Your task to perform on an android device: check data usage Image 0: 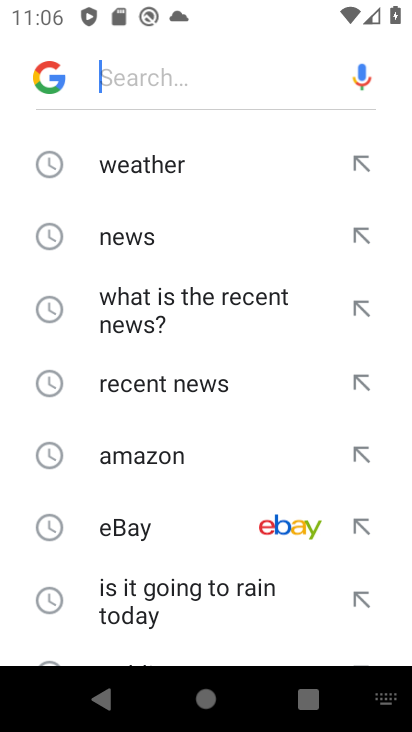
Step 0: press home button
Your task to perform on an android device: check data usage Image 1: 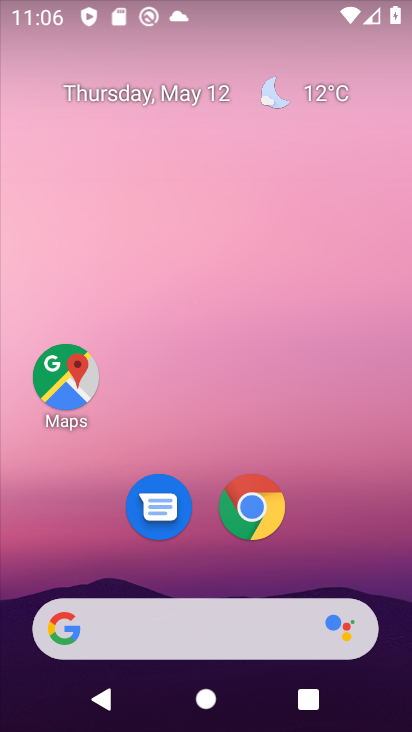
Step 1: drag from (207, 564) to (291, 38)
Your task to perform on an android device: check data usage Image 2: 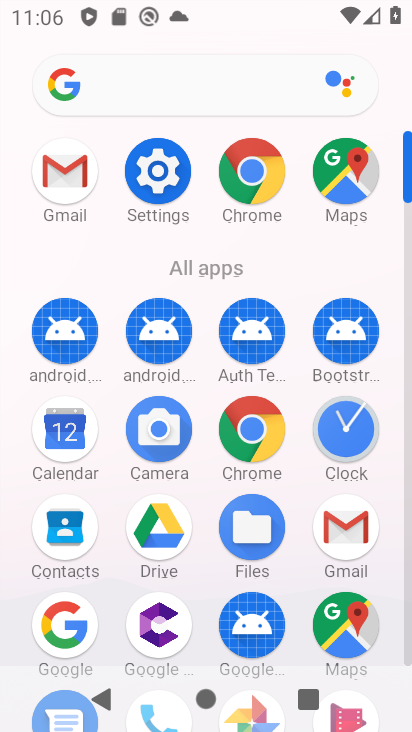
Step 2: click (176, 185)
Your task to perform on an android device: check data usage Image 3: 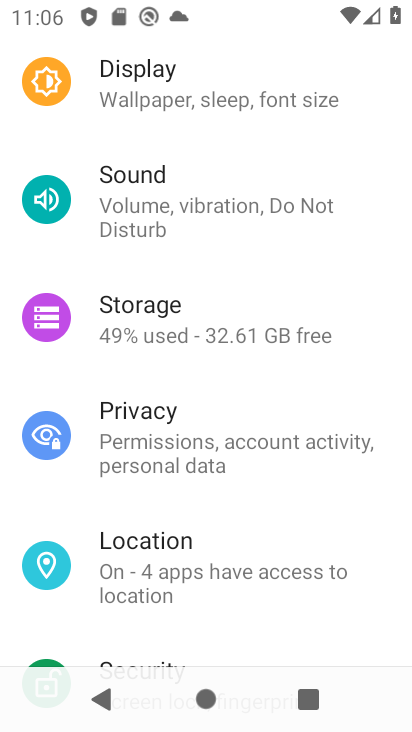
Step 3: drag from (182, 296) to (182, 700)
Your task to perform on an android device: check data usage Image 4: 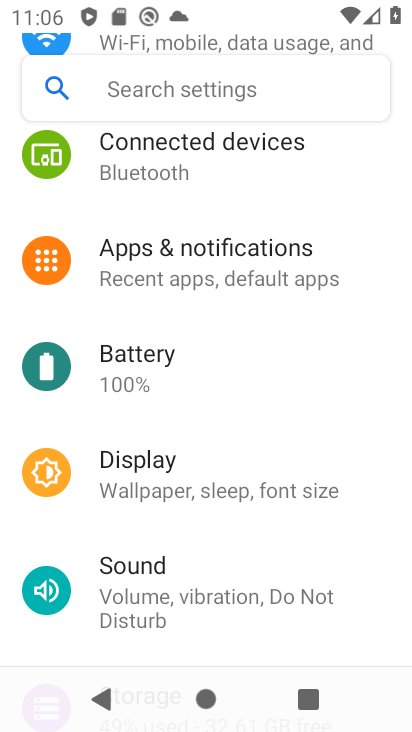
Step 4: drag from (195, 198) to (174, 725)
Your task to perform on an android device: check data usage Image 5: 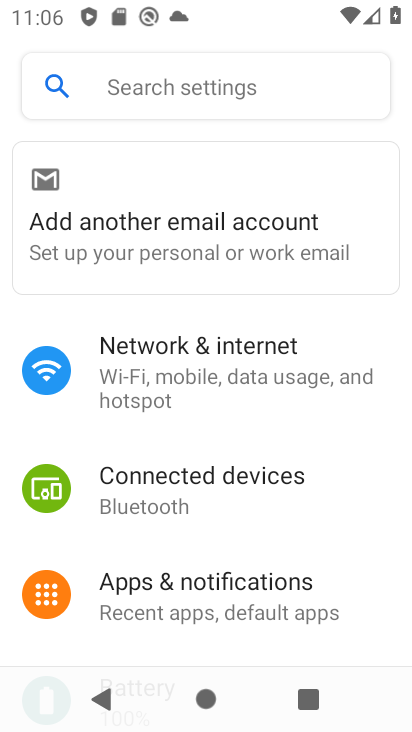
Step 5: click (151, 407)
Your task to perform on an android device: check data usage Image 6: 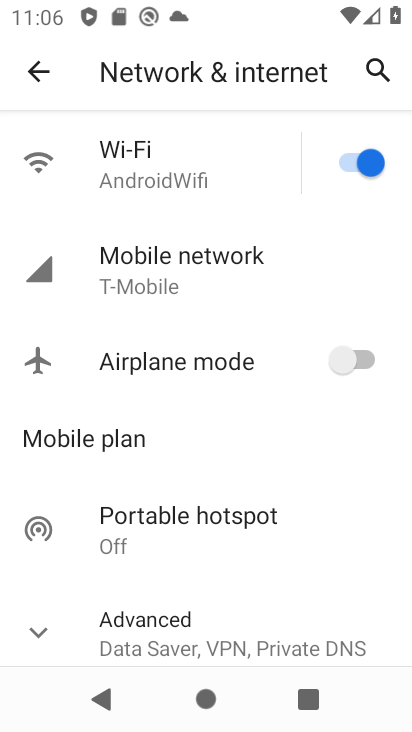
Step 6: click (151, 301)
Your task to perform on an android device: check data usage Image 7: 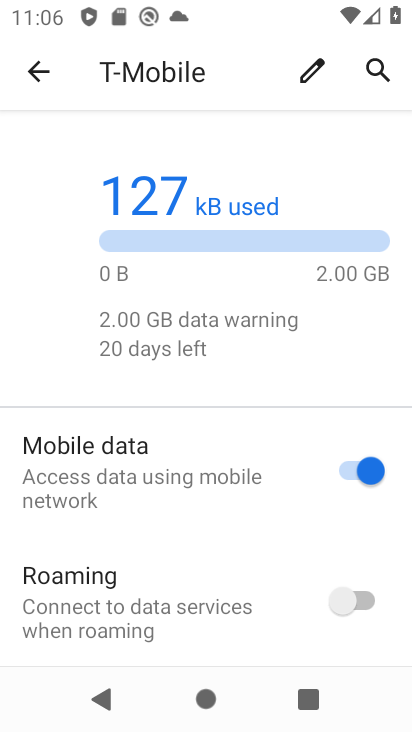
Step 7: drag from (132, 553) to (266, 106)
Your task to perform on an android device: check data usage Image 8: 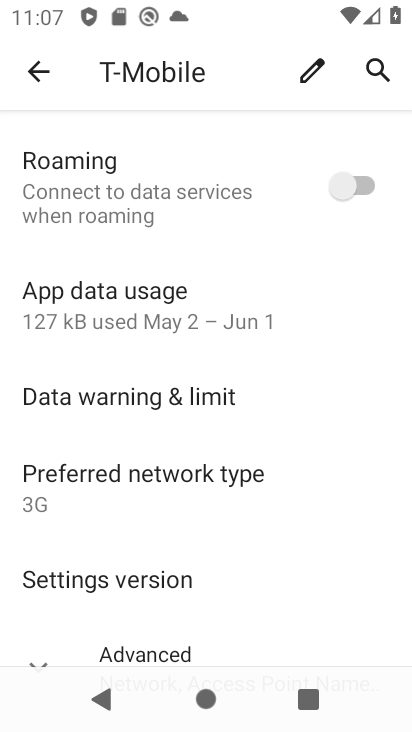
Step 8: drag from (134, 612) to (155, 307)
Your task to perform on an android device: check data usage Image 9: 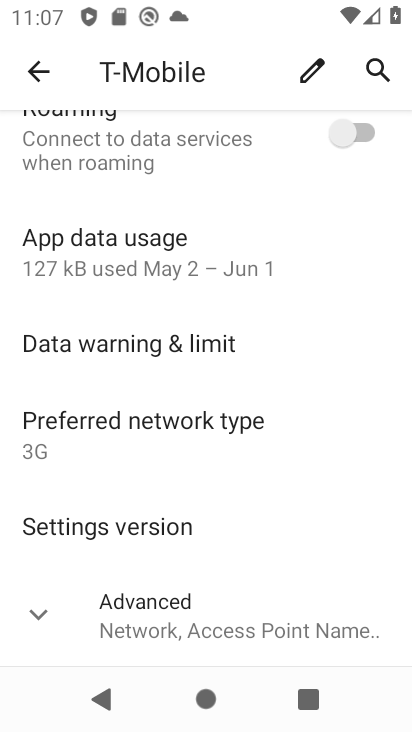
Step 9: click (136, 265)
Your task to perform on an android device: check data usage Image 10: 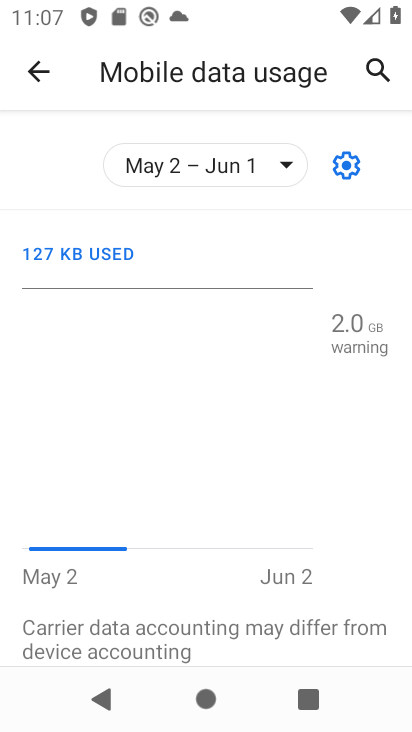
Step 10: task complete